Your task to perform on an android device: change the clock display to digital Image 0: 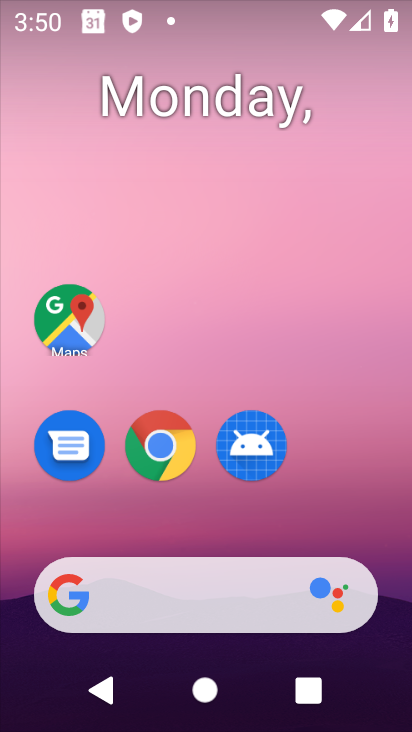
Step 0: drag from (351, 519) to (373, 14)
Your task to perform on an android device: change the clock display to digital Image 1: 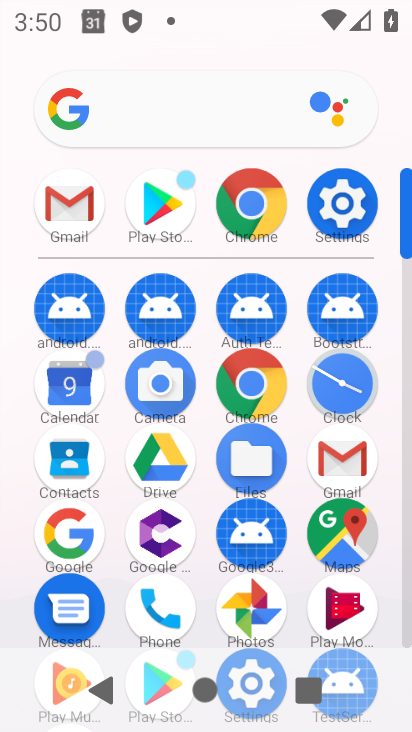
Step 1: click (327, 372)
Your task to perform on an android device: change the clock display to digital Image 2: 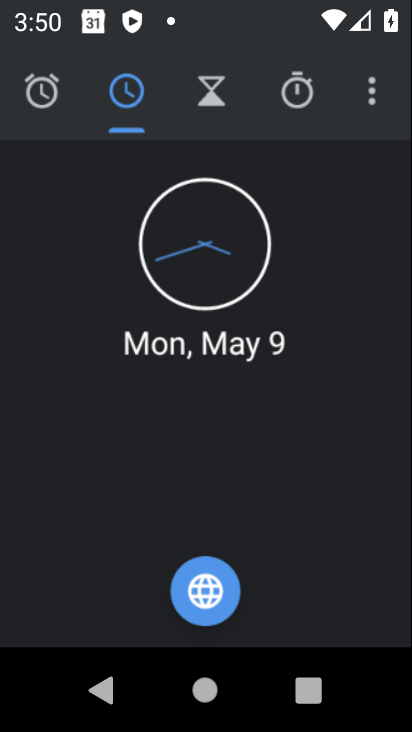
Step 2: click (366, 76)
Your task to perform on an android device: change the clock display to digital Image 3: 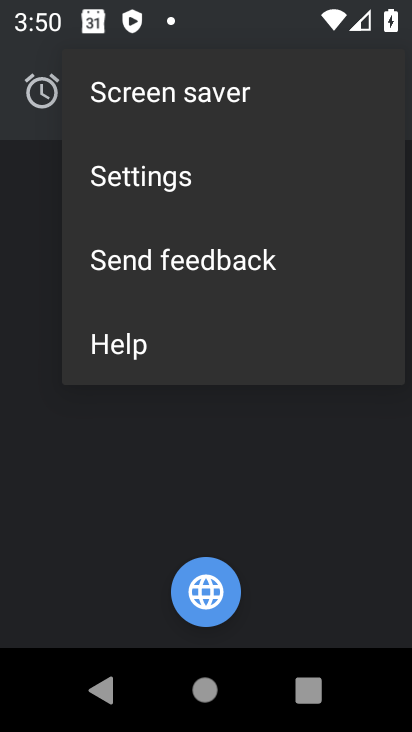
Step 3: click (194, 198)
Your task to perform on an android device: change the clock display to digital Image 4: 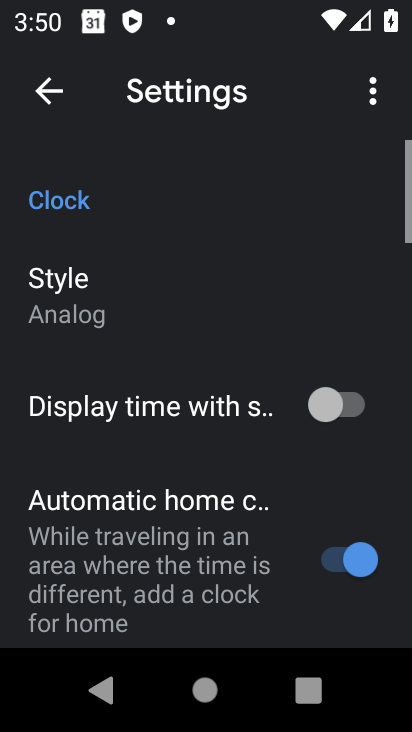
Step 4: click (155, 301)
Your task to perform on an android device: change the clock display to digital Image 5: 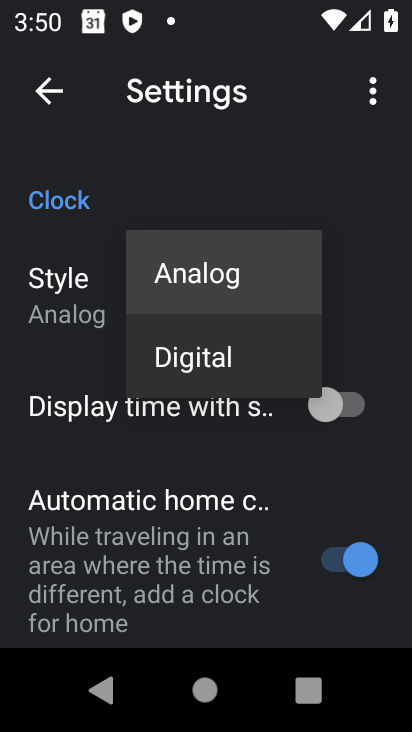
Step 5: click (169, 358)
Your task to perform on an android device: change the clock display to digital Image 6: 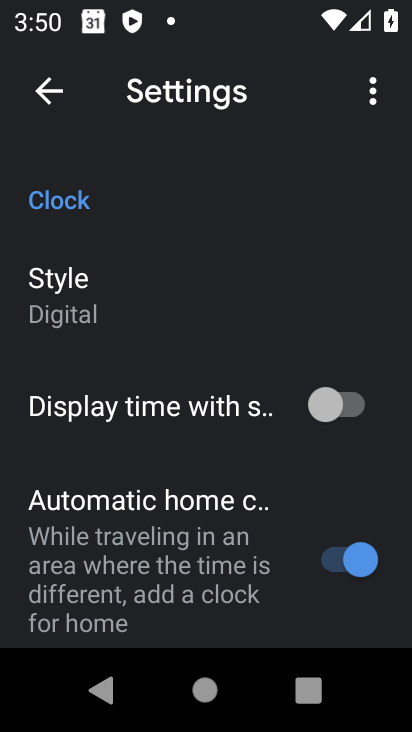
Step 6: task complete